Your task to perform on an android device: Open calendar and show me the second week of next month Image 0: 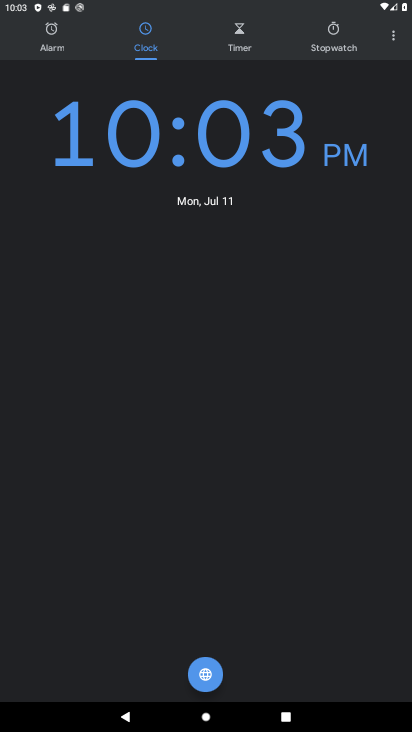
Step 0: press home button
Your task to perform on an android device: Open calendar and show me the second week of next month Image 1: 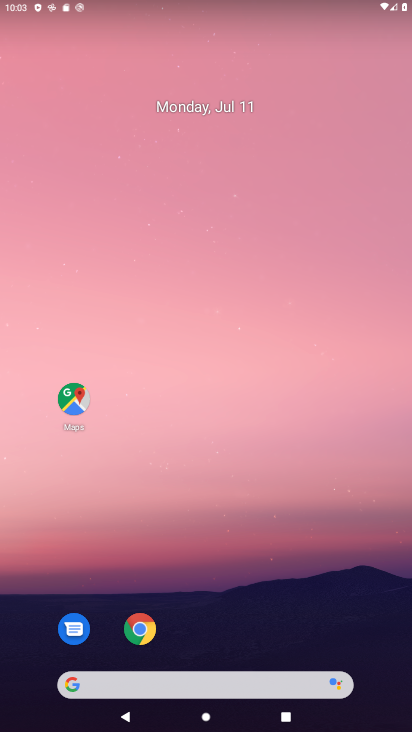
Step 1: drag from (264, 603) to (198, 16)
Your task to perform on an android device: Open calendar and show me the second week of next month Image 2: 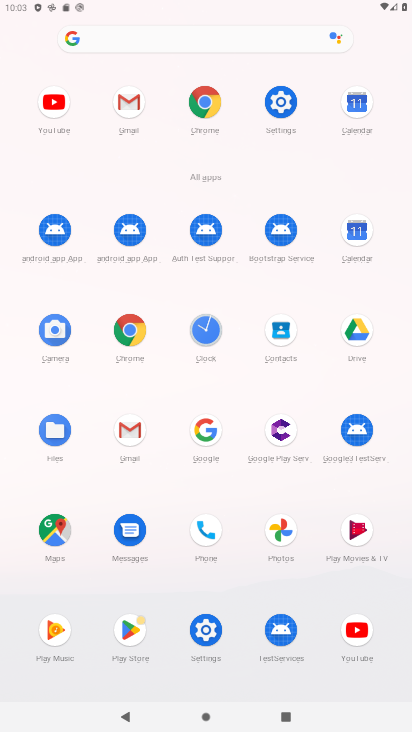
Step 2: click (342, 118)
Your task to perform on an android device: Open calendar and show me the second week of next month Image 3: 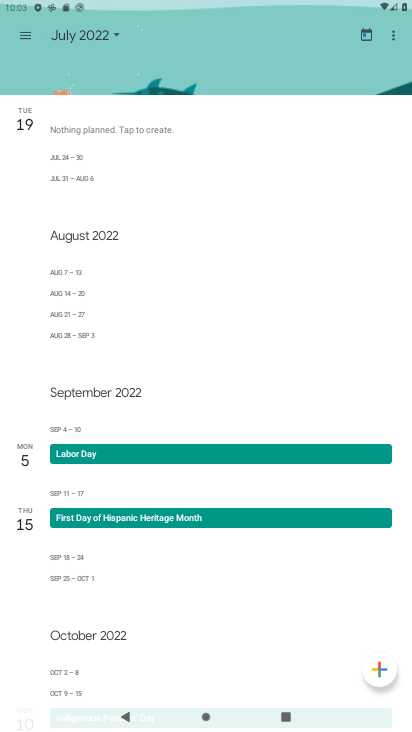
Step 3: click (24, 45)
Your task to perform on an android device: Open calendar and show me the second week of next month Image 4: 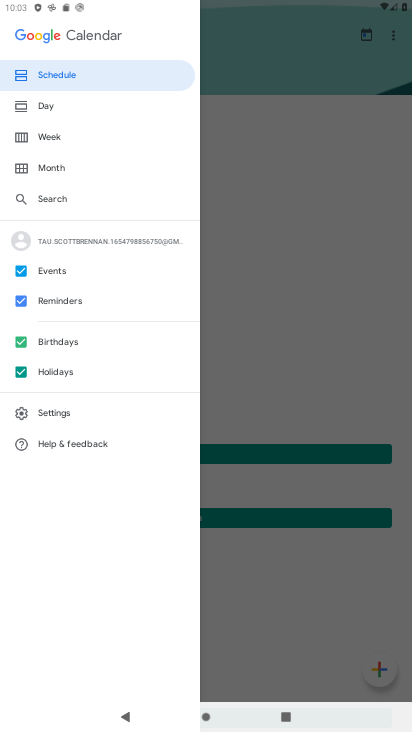
Step 4: click (217, 240)
Your task to perform on an android device: Open calendar and show me the second week of next month Image 5: 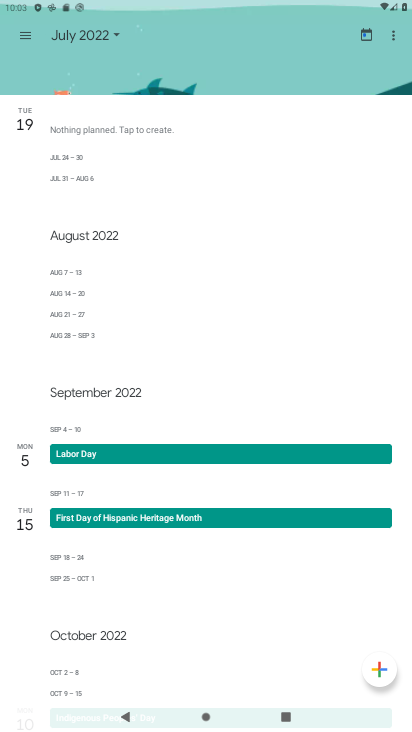
Step 5: click (114, 51)
Your task to perform on an android device: Open calendar and show me the second week of next month Image 6: 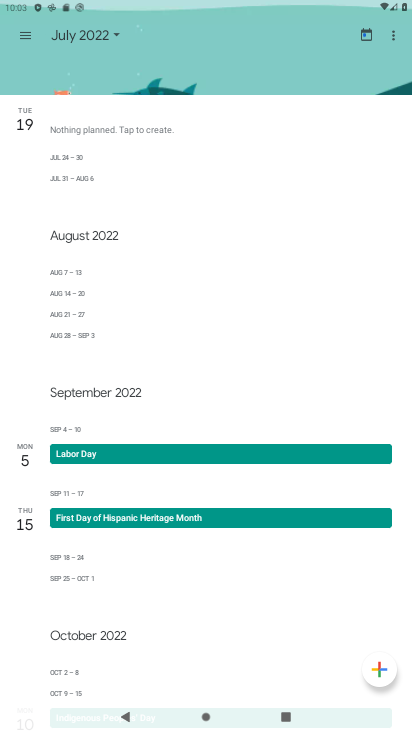
Step 6: click (75, 31)
Your task to perform on an android device: Open calendar and show me the second week of next month Image 7: 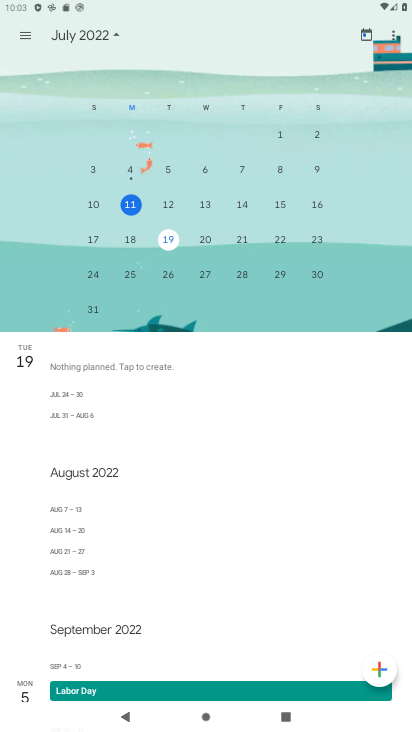
Step 7: drag from (344, 208) to (3, 243)
Your task to perform on an android device: Open calendar and show me the second week of next month Image 8: 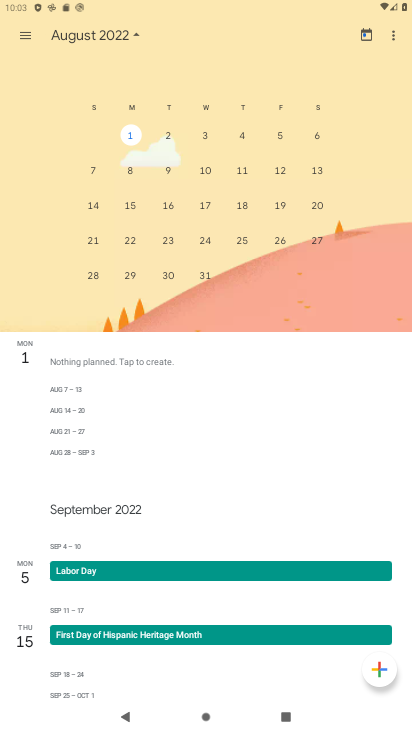
Step 8: click (209, 171)
Your task to perform on an android device: Open calendar and show me the second week of next month Image 9: 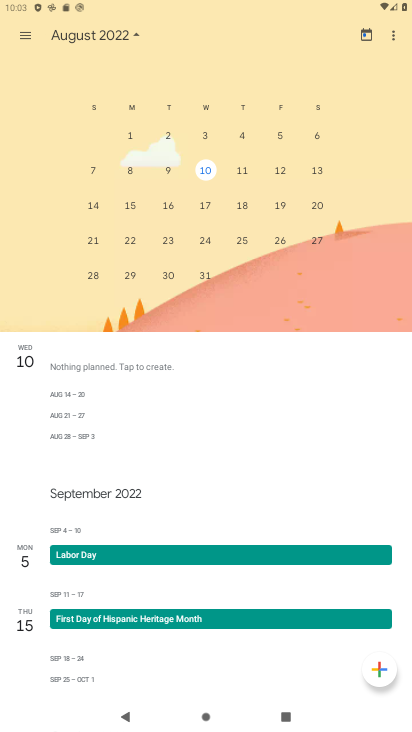
Step 9: task complete